Your task to perform on an android device: Open Android settings Image 0: 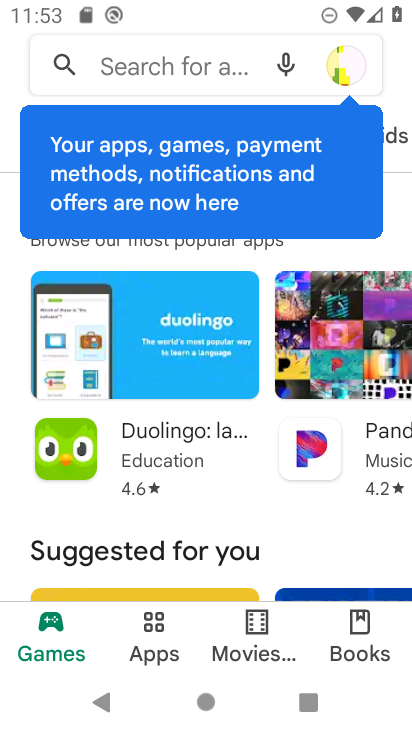
Step 0: press home button
Your task to perform on an android device: Open Android settings Image 1: 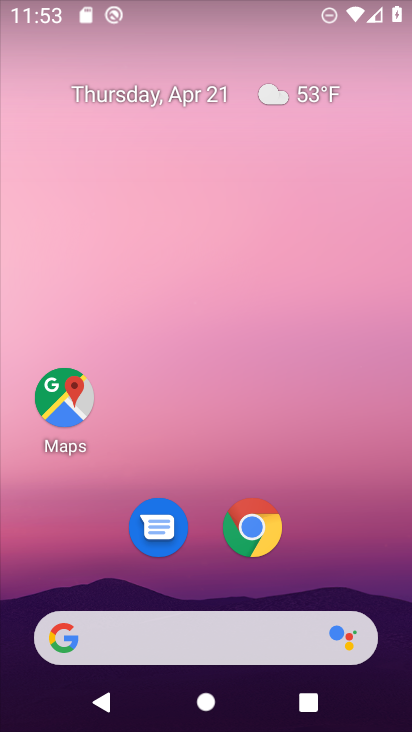
Step 1: drag from (361, 543) to (360, 149)
Your task to perform on an android device: Open Android settings Image 2: 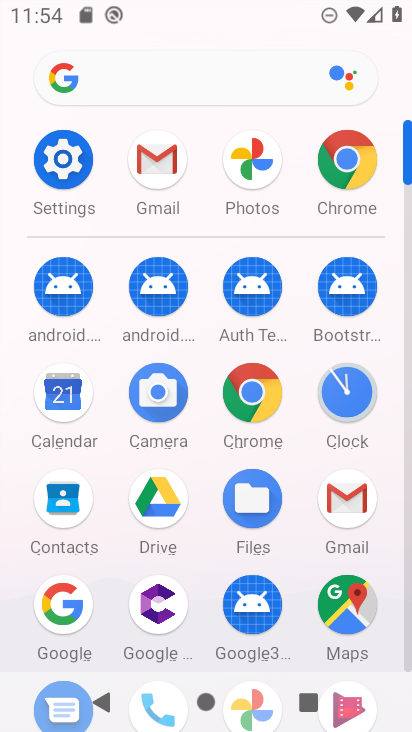
Step 2: click (75, 167)
Your task to perform on an android device: Open Android settings Image 3: 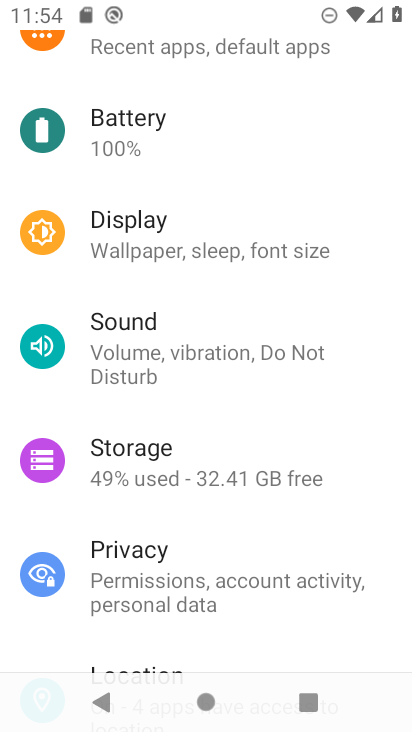
Step 3: drag from (366, 495) to (365, 368)
Your task to perform on an android device: Open Android settings Image 4: 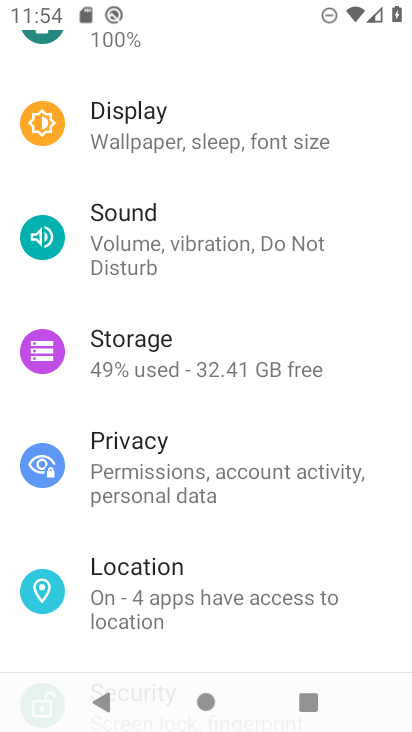
Step 4: drag from (374, 543) to (377, 386)
Your task to perform on an android device: Open Android settings Image 5: 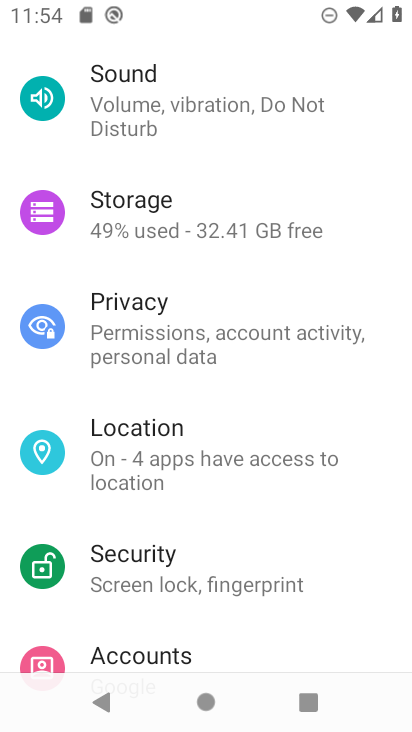
Step 5: drag from (366, 558) to (369, 408)
Your task to perform on an android device: Open Android settings Image 6: 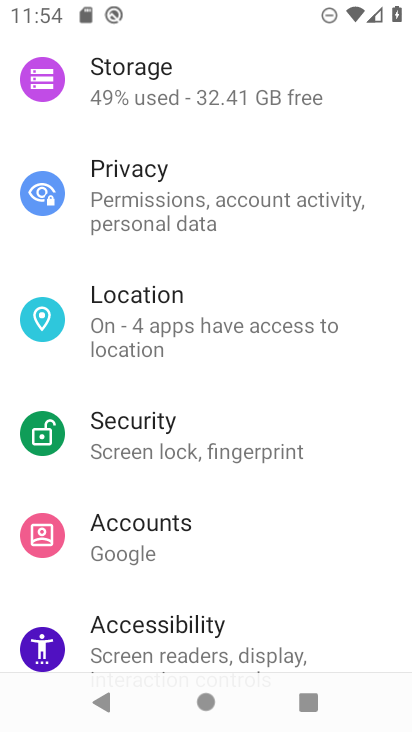
Step 6: drag from (368, 597) to (375, 450)
Your task to perform on an android device: Open Android settings Image 7: 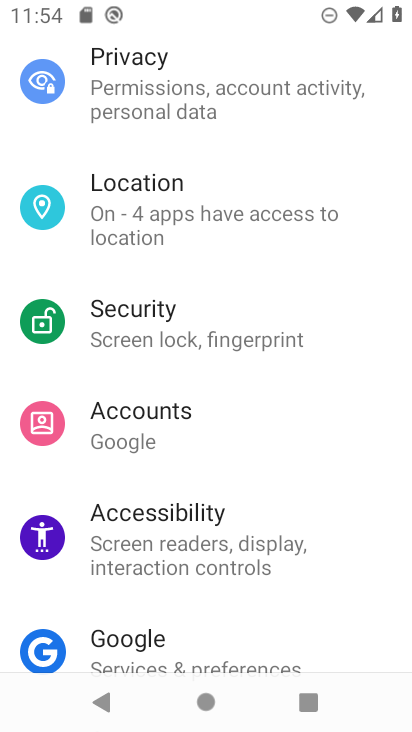
Step 7: drag from (355, 582) to (355, 441)
Your task to perform on an android device: Open Android settings Image 8: 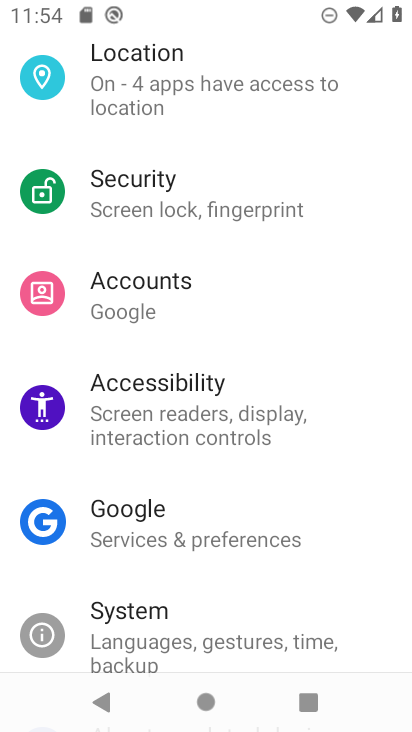
Step 8: drag from (341, 579) to (354, 387)
Your task to perform on an android device: Open Android settings Image 9: 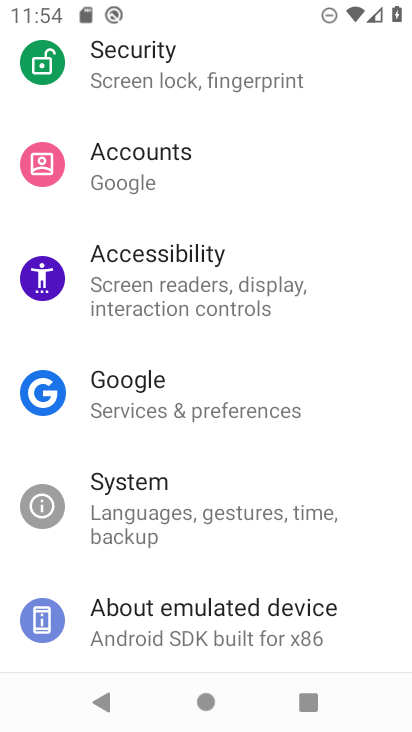
Step 9: click (311, 505)
Your task to perform on an android device: Open Android settings Image 10: 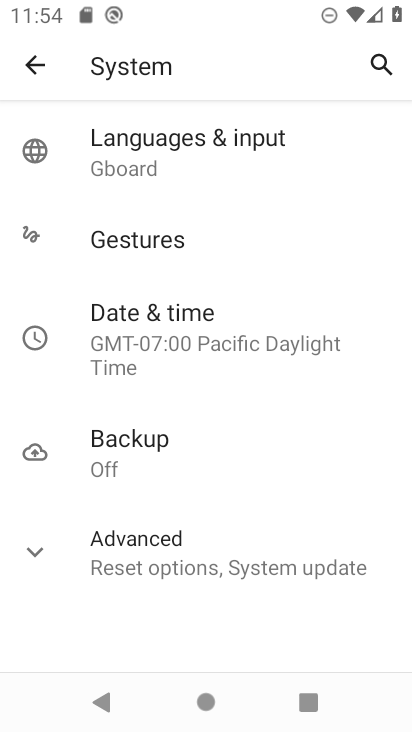
Step 10: click (259, 552)
Your task to perform on an android device: Open Android settings Image 11: 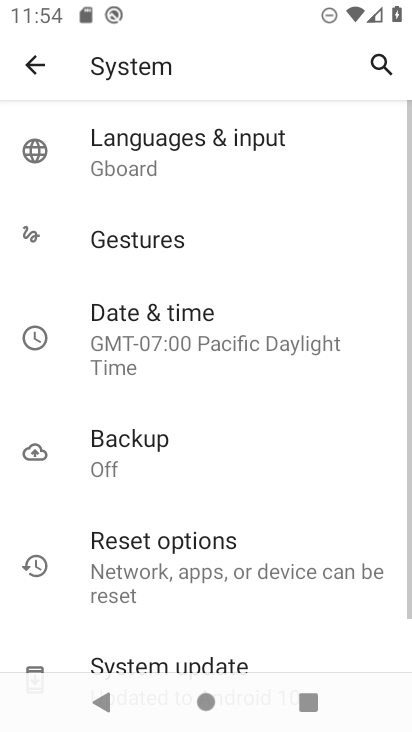
Step 11: task complete